Your task to perform on an android device: turn off priority inbox in the gmail app Image 0: 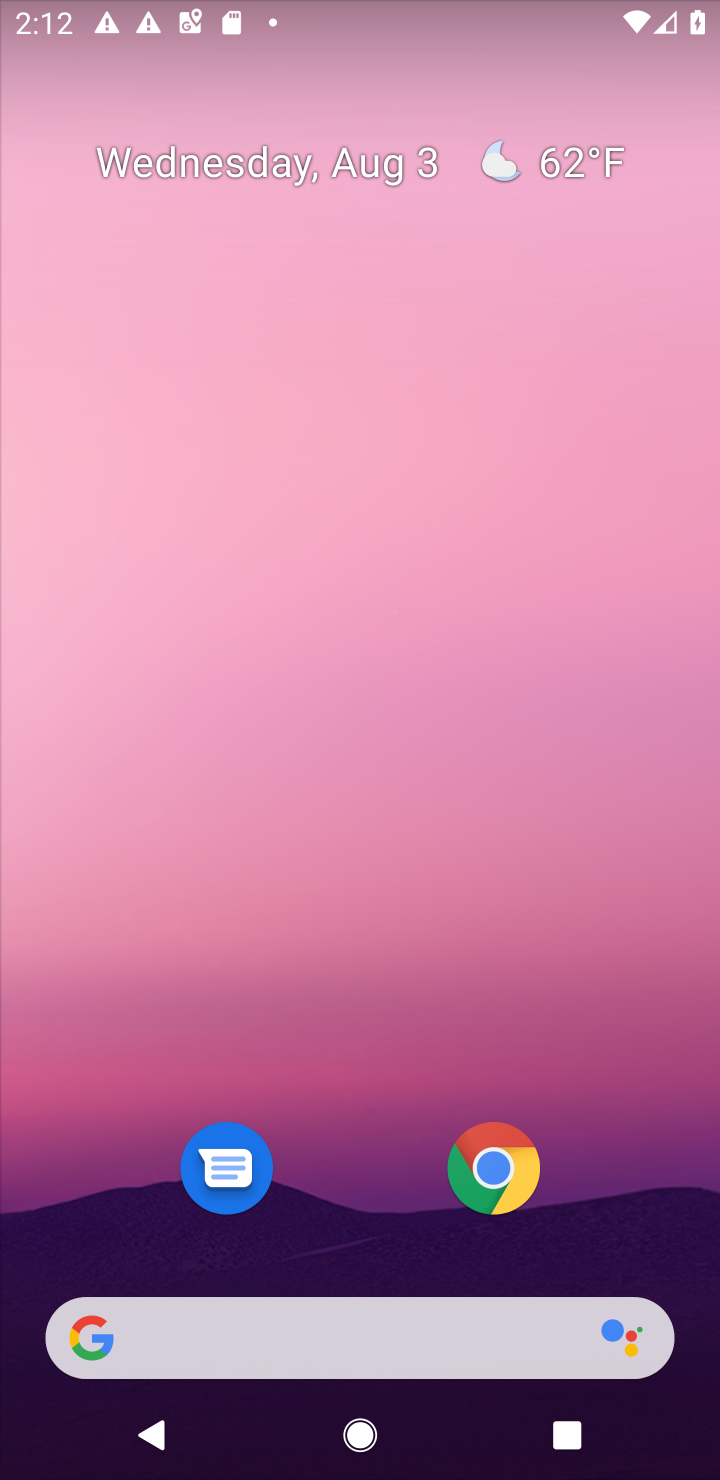
Step 0: drag from (656, 1070) to (602, 232)
Your task to perform on an android device: turn off priority inbox in the gmail app Image 1: 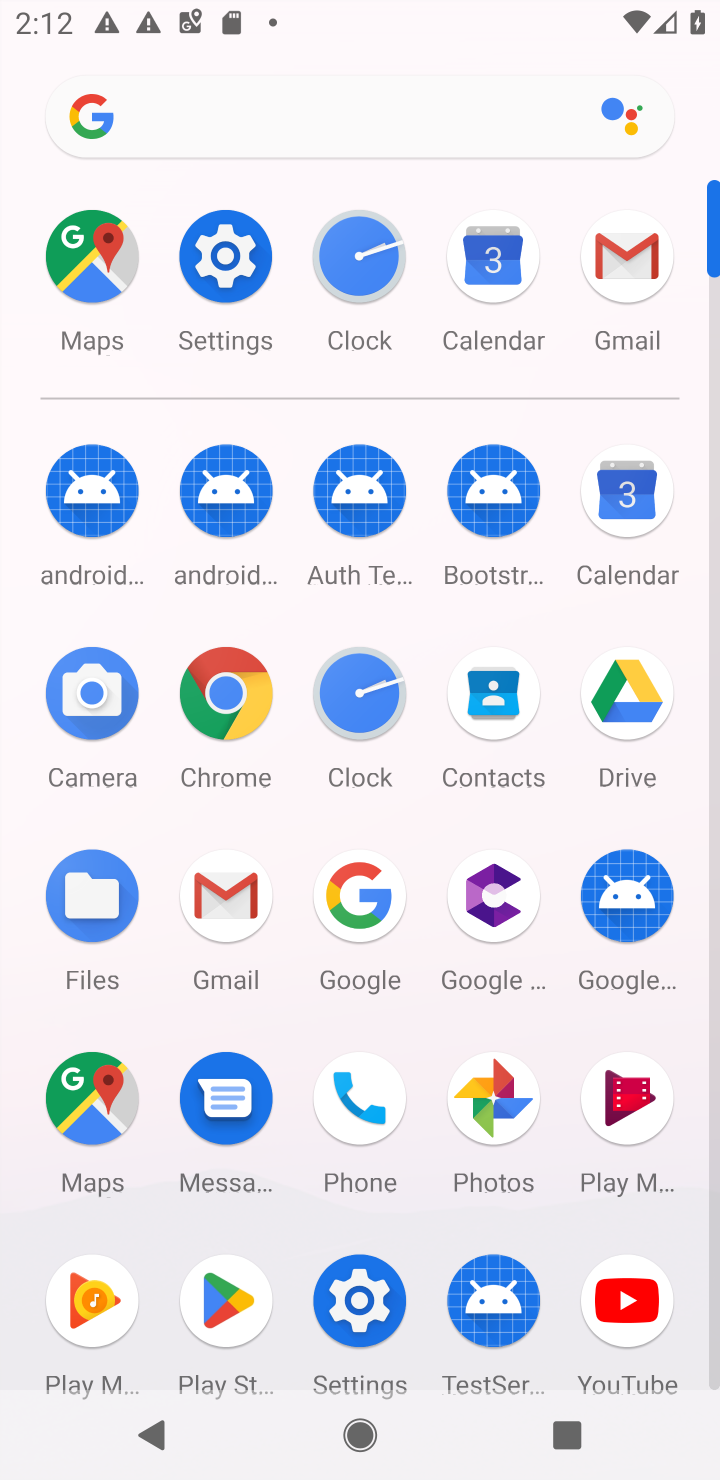
Step 1: click (225, 896)
Your task to perform on an android device: turn off priority inbox in the gmail app Image 2: 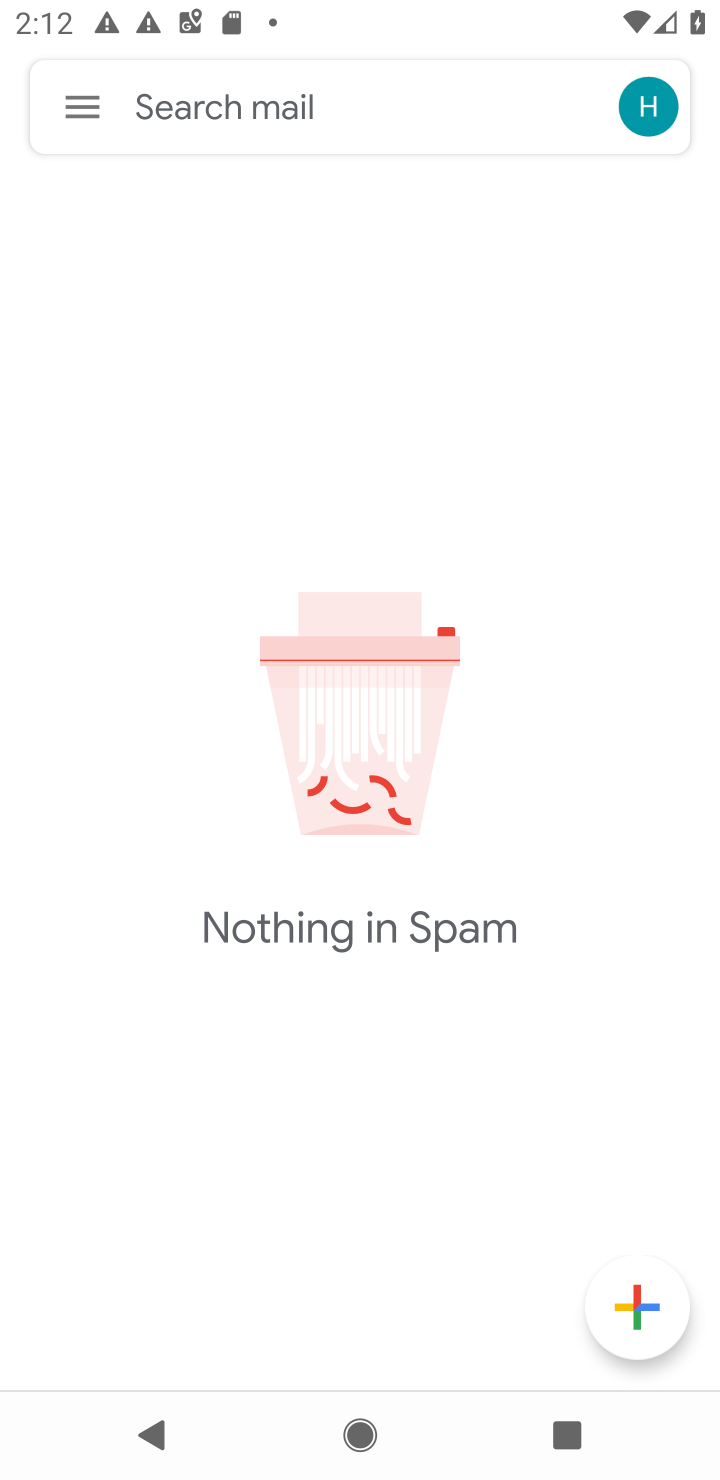
Step 2: click (80, 107)
Your task to perform on an android device: turn off priority inbox in the gmail app Image 3: 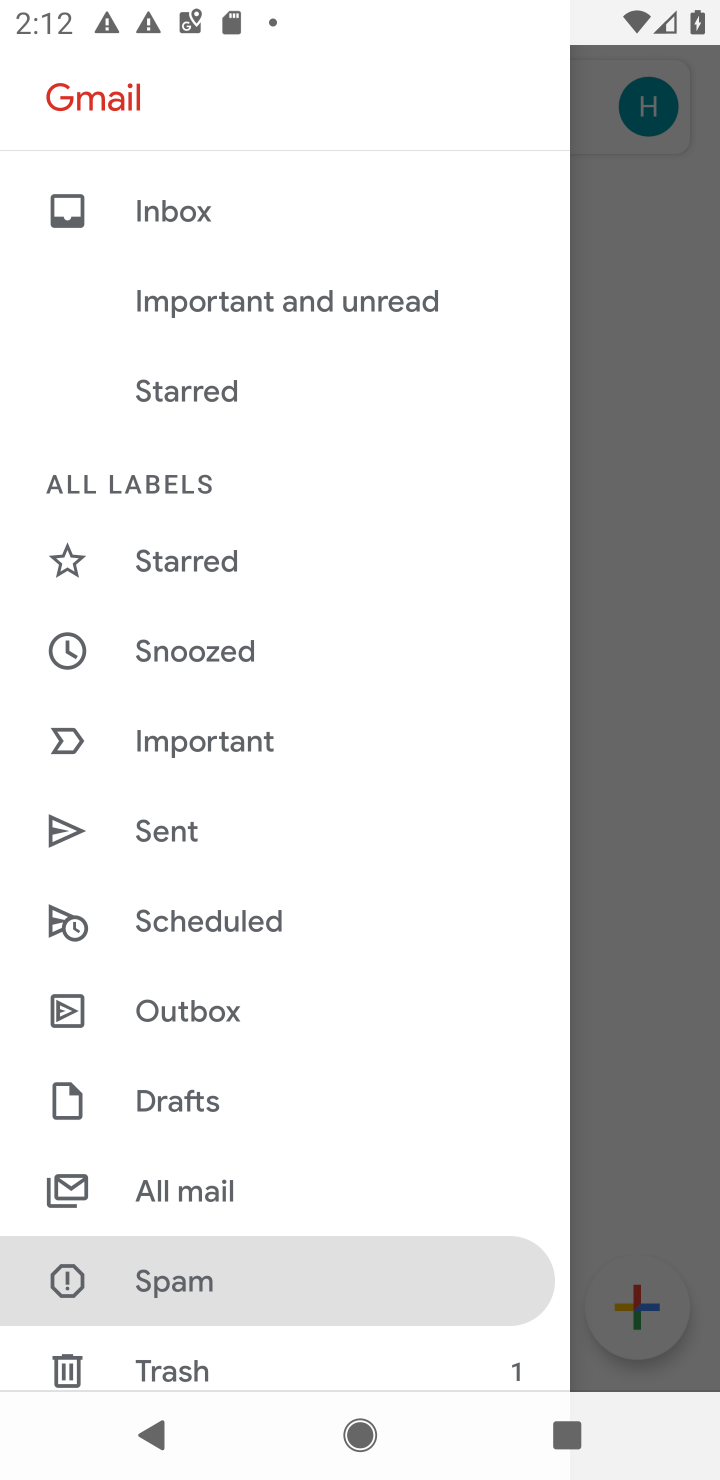
Step 3: drag from (394, 1205) to (436, 352)
Your task to perform on an android device: turn off priority inbox in the gmail app Image 4: 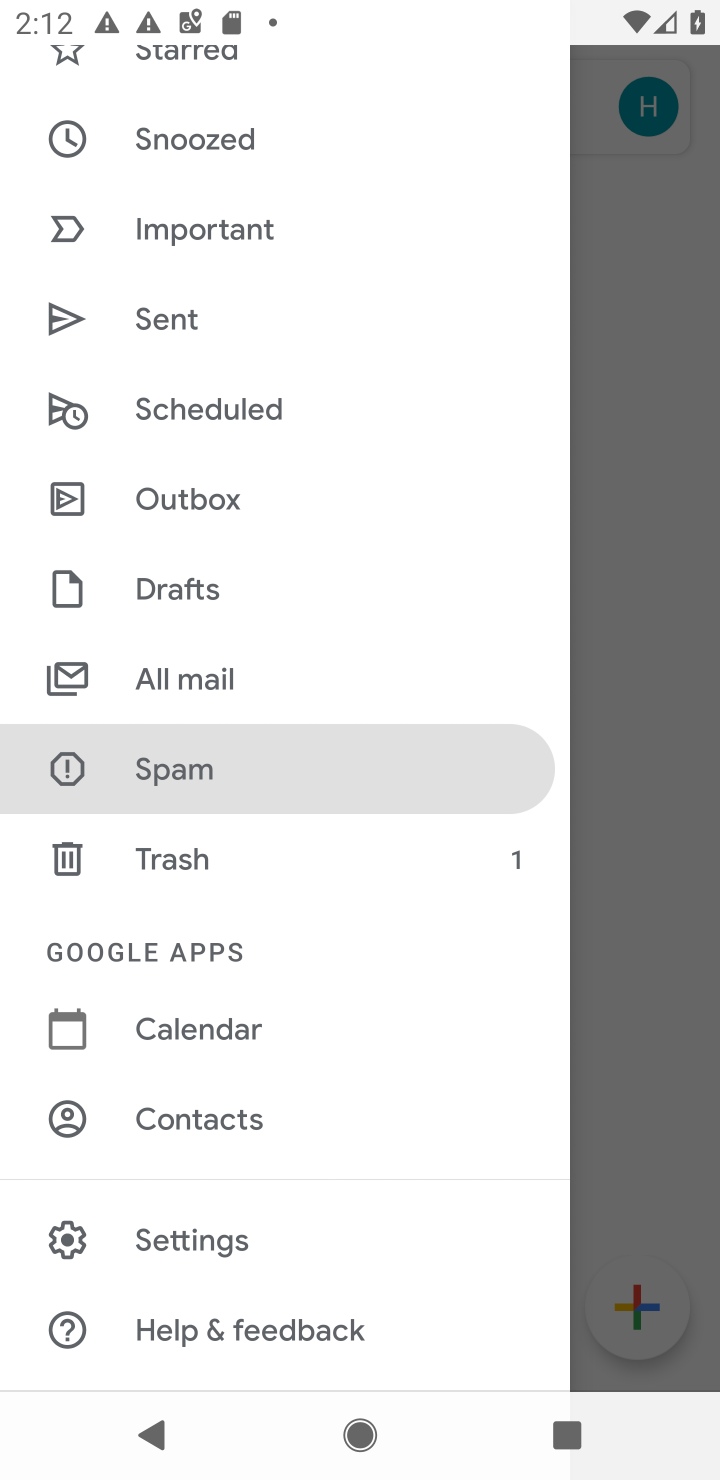
Step 4: click (179, 1244)
Your task to perform on an android device: turn off priority inbox in the gmail app Image 5: 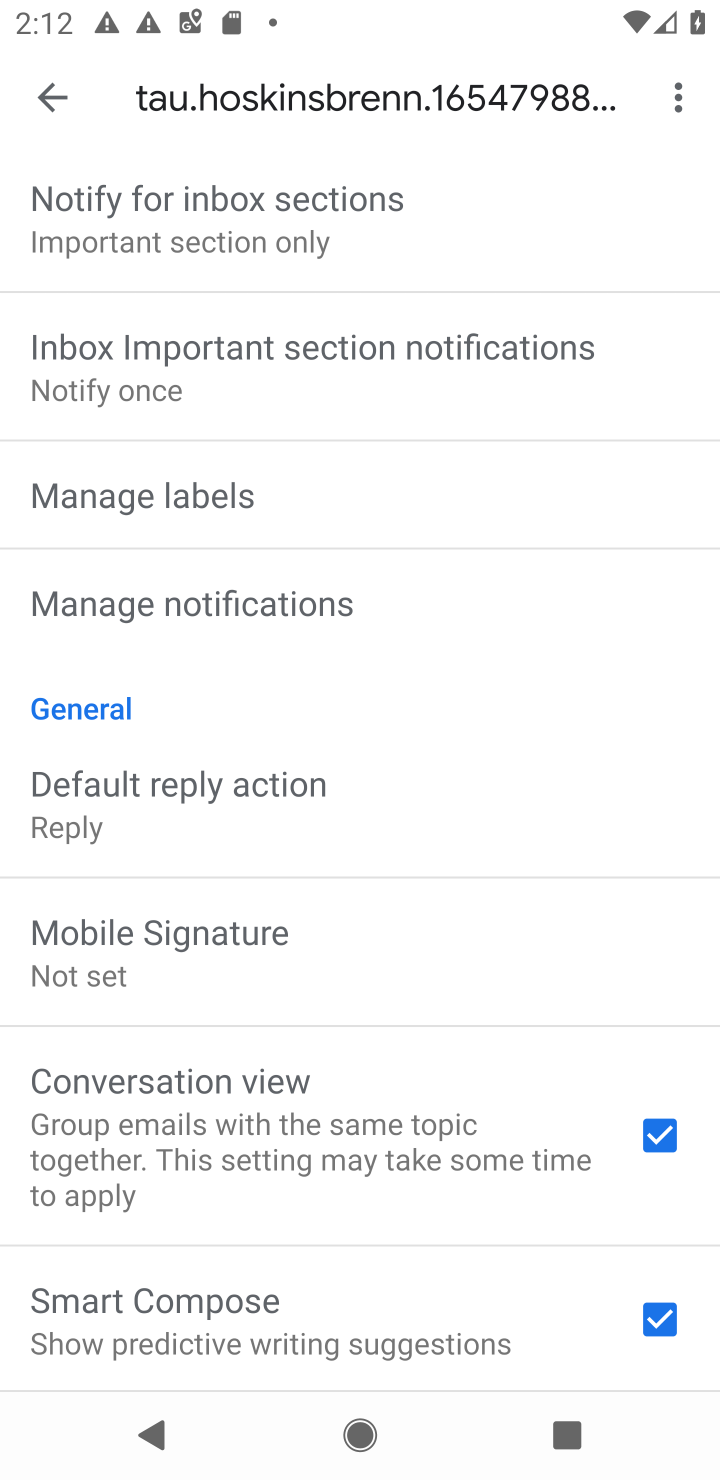
Step 5: drag from (460, 475) to (405, 1219)
Your task to perform on an android device: turn off priority inbox in the gmail app Image 6: 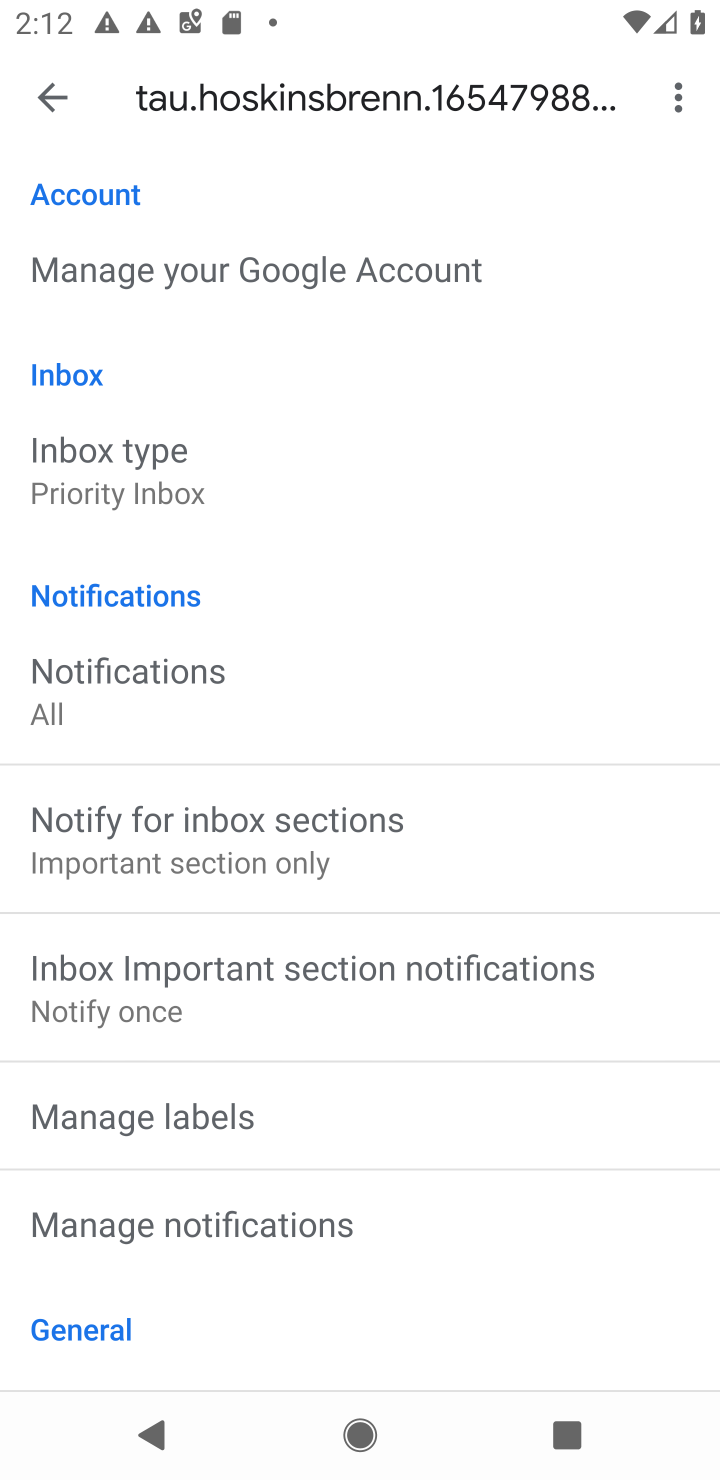
Step 6: click (79, 468)
Your task to perform on an android device: turn off priority inbox in the gmail app Image 7: 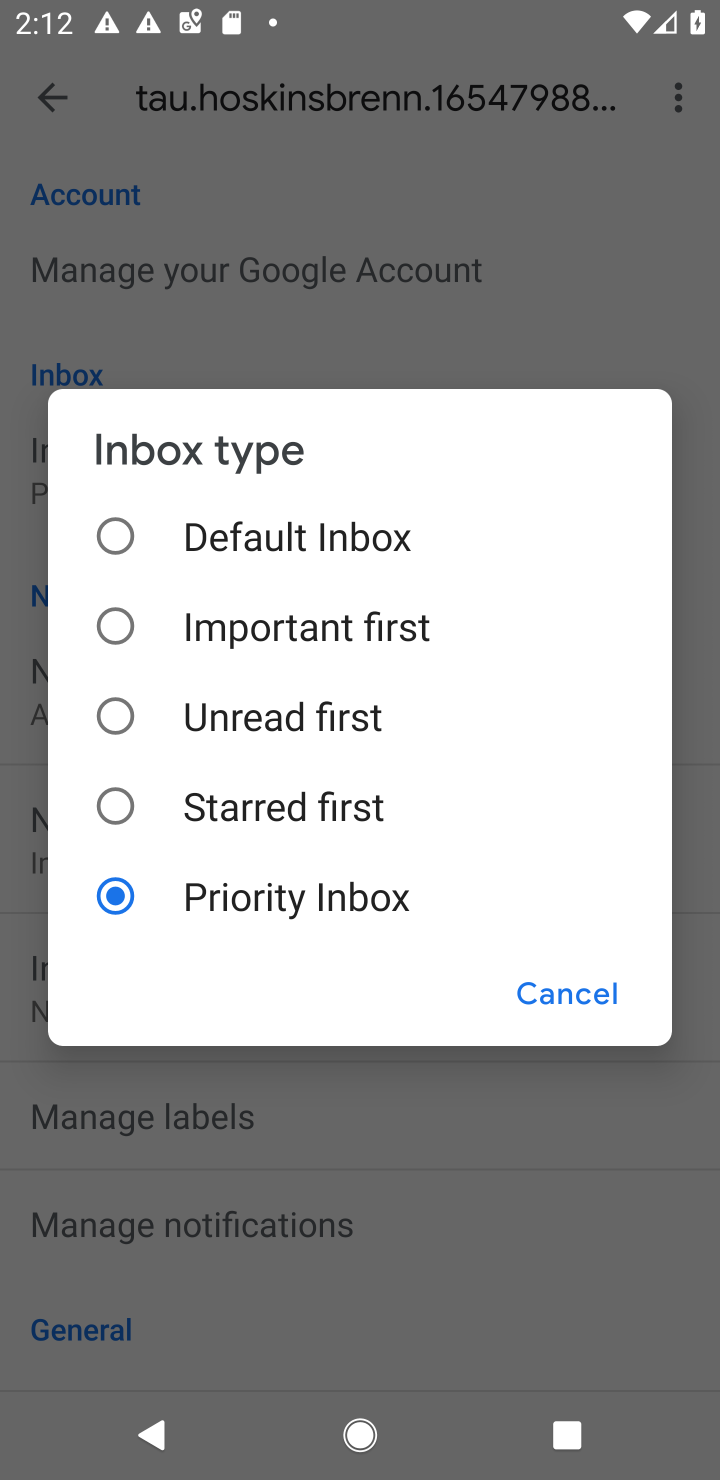
Step 7: click (118, 525)
Your task to perform on an android device: turn off priority inbox in the gmail app Image 8: 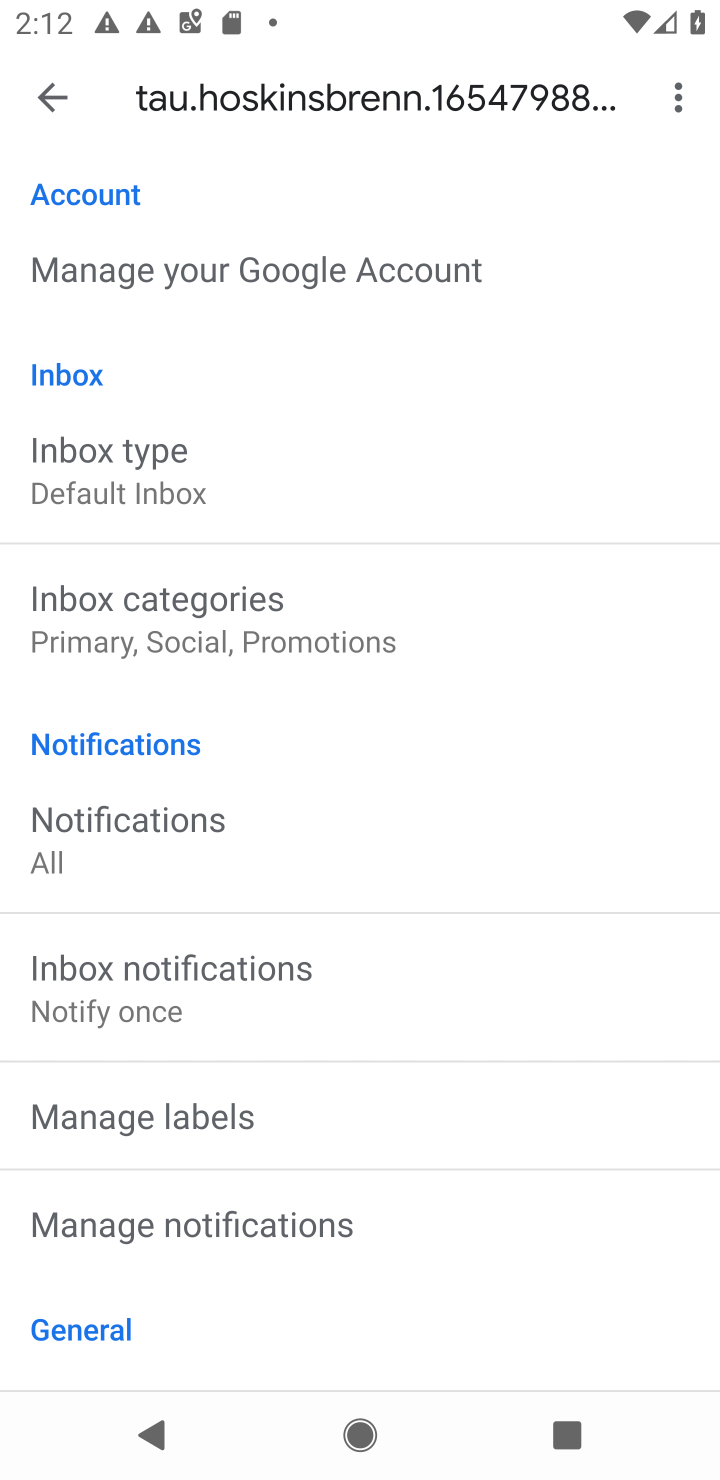
Step 8: task complete